Your task to perform on an android device: Open Chrome and go to the settings page Image 0: 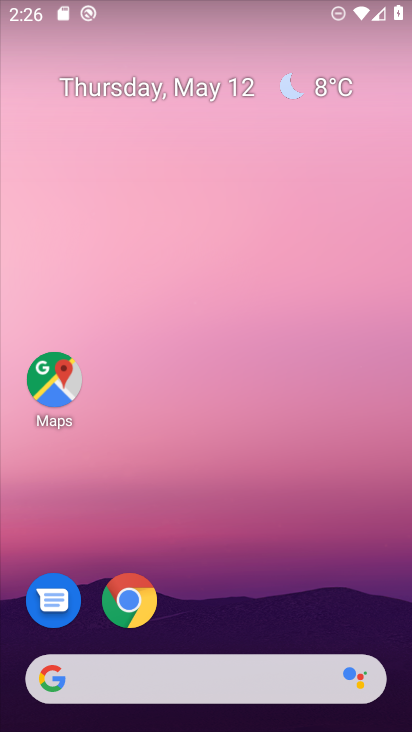
Step 0: click (129, 603)
Your task to perform on an android device: Open Chrome and go to the settings page Image 1: 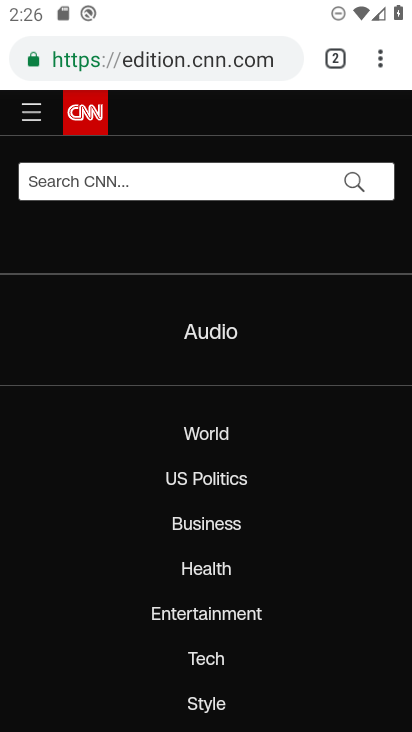
Step 1: click (380, 64)
Your task to perform on an android device: Open Chrome and go to the settings page Image 2: 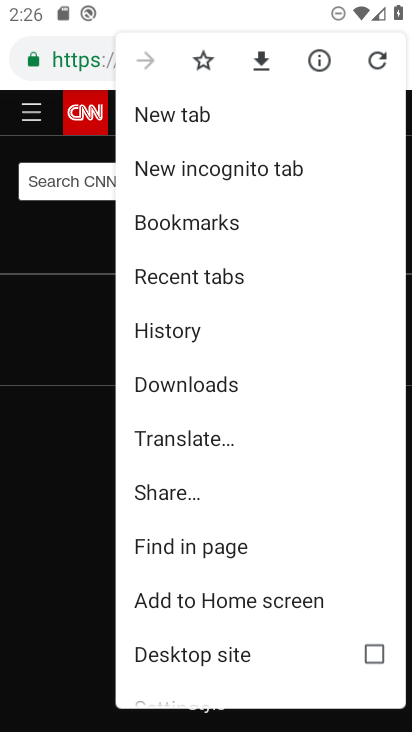
Step 2: drag from (232, 635) to (237, 302)
Your task to perform on an android device: Open Chrome and go to the settings page Image 3: 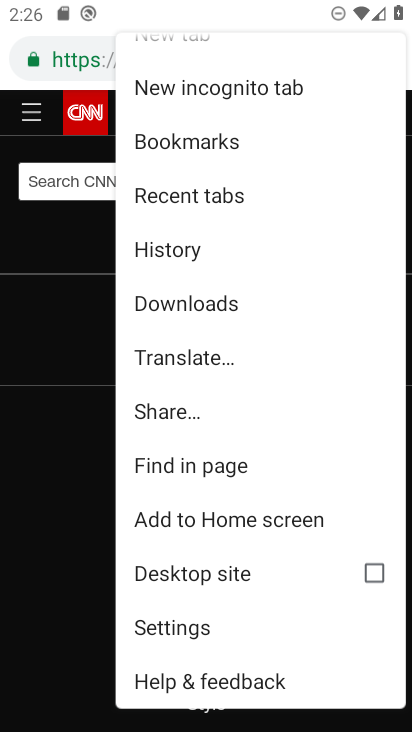
Step 3: click (176, 613)
Your task to perform on an android device: Open Chrome and go to the settings page Image 4: 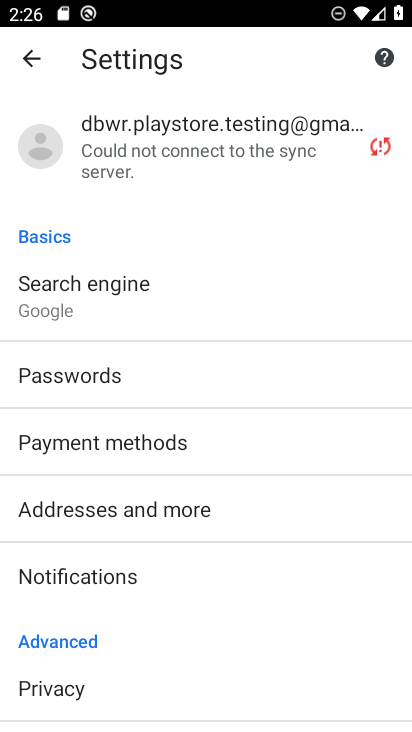
Step 4: task complete